Your task to perform on an android device: What is the recent news? Image 0: 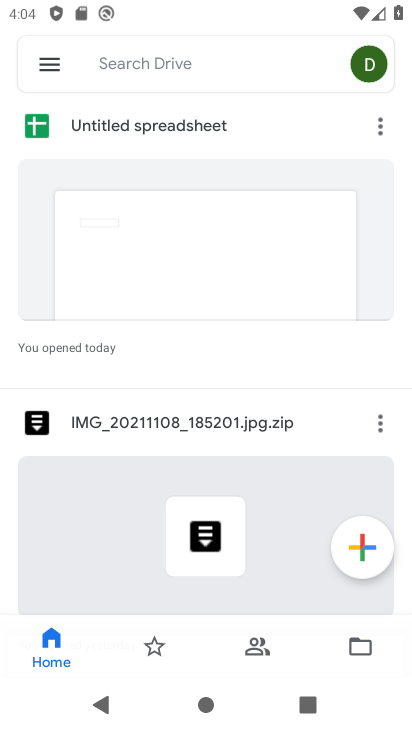
Step 0: press back button
Your task to perform on an android device: What is the recent news? Image 1: 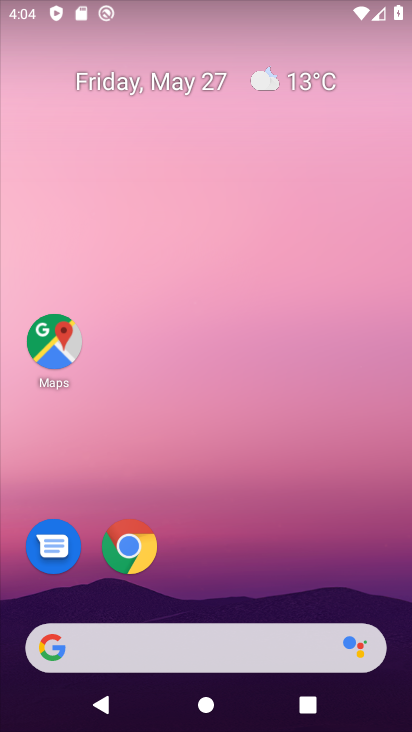
Step 1: task complete